Your task to perform on an android device: Open Reddit.com Image 0: 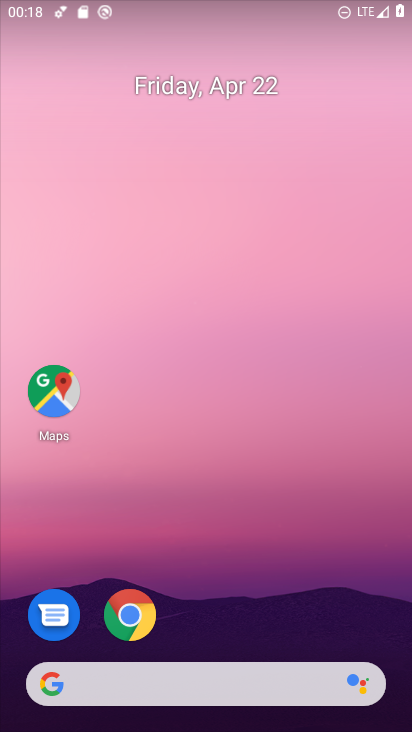
Step 0: drag from (9, 246) to (409, 246)
Your task to perform on an android device: Open Reddit.com Image 1: 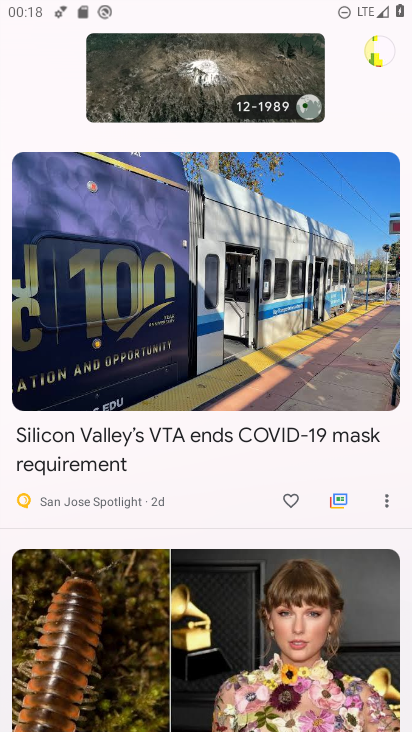
Step 1: press home button
Your task to perform on an android device: Open Reddit.com Image 2: 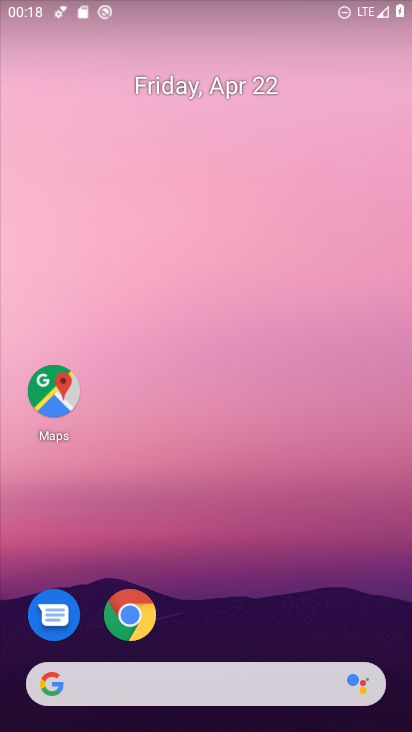
Step 2: click (126, 608)
Your task to perform on an android device: Open Reddit.com Image 3: 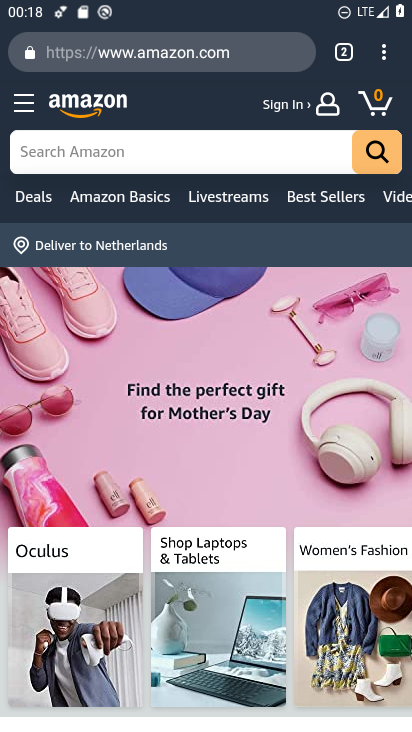
Step 3: click (344, 47)
Your task to perform on an android device: Open Reddit.com Image 4: 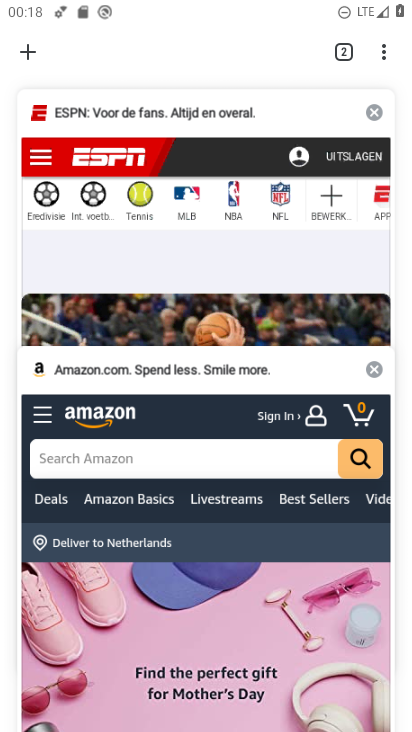
Step 4: click (31, 47)
Your task to perform on an android device: Open Reddit.com Image 5: 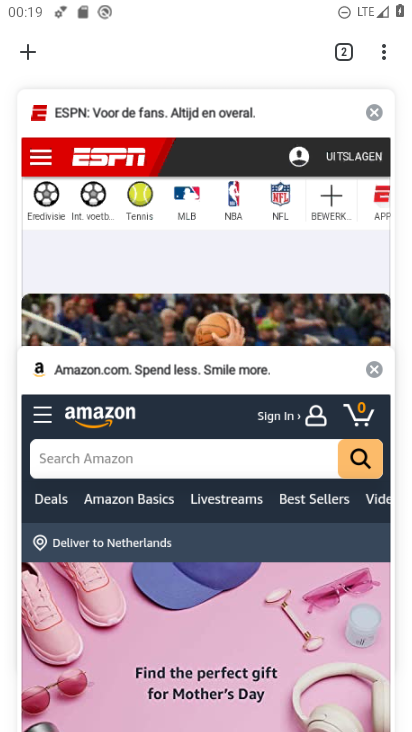
Step 5: click (29, 51)
Your task to perform on an android device: Open Reddit.com Image 6: 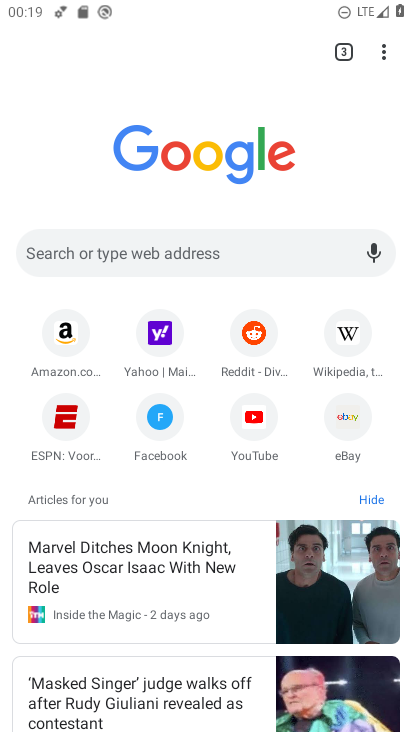
Step 6: click (248, 332)
Your task to perform on an android device: Open Reddit.com Image 7: 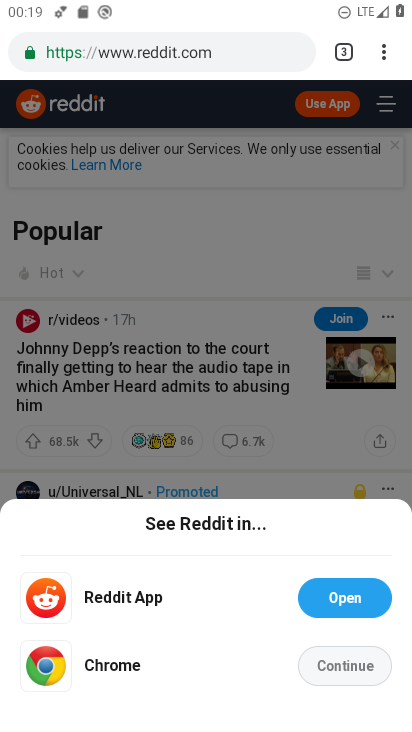
Step 7: click (353, 667)
Your task to perform on an android device: Open Reddit.com Image 8: 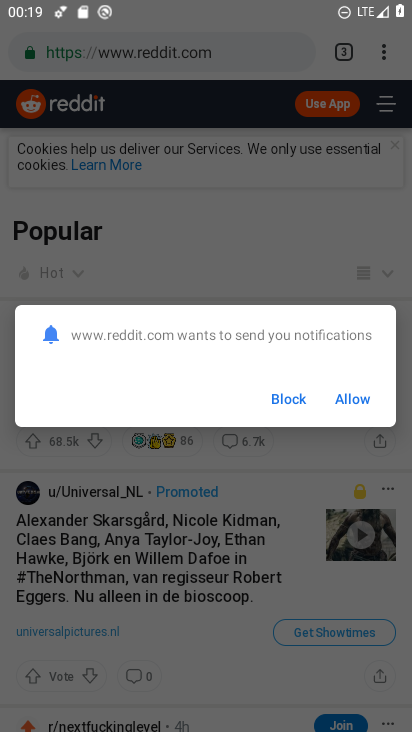
Step 8: click (288, 393)
Your task to perform on an android device: Open Reddit.com Image 9: 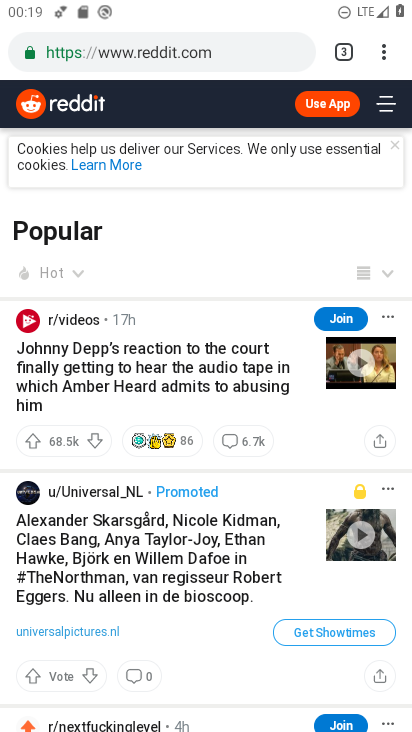
Step 9: task complete